Your task to perform on an android device: Add bose soundsport free to the cart on bestbuy Image 0: 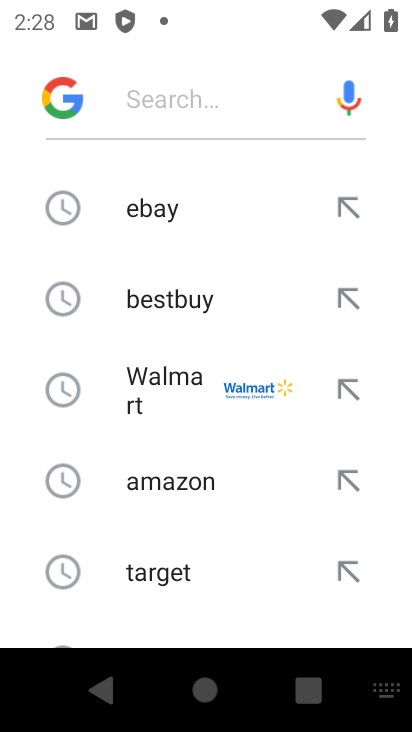
Step 0: click (141, 281)
Your task to perform on an android device: Add bose soundsport free to the cart on bestbuy Image 1: 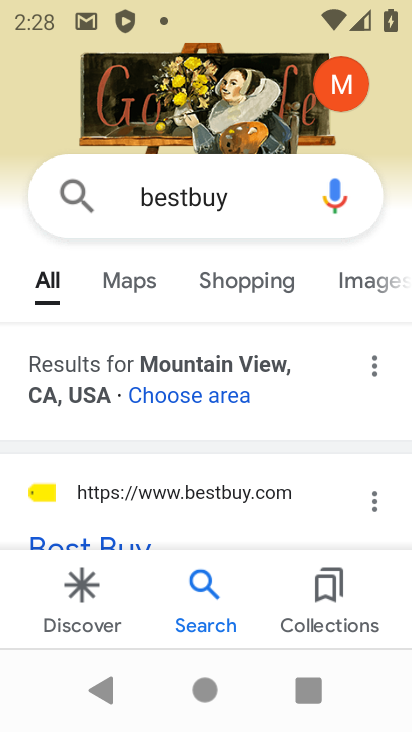
Step 1: click (108, 527)
Your task to perform on an android device: Add bose soundsport free to the cart on bestbuy Image 2: 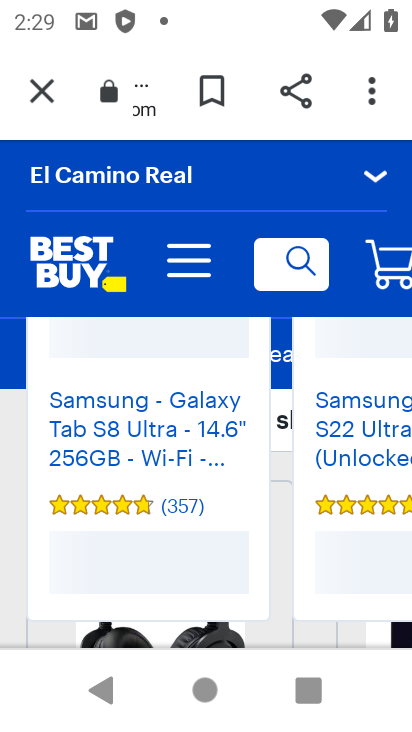
Step 2: task complete